Your task to perform on an android device: Check the news Image 0: 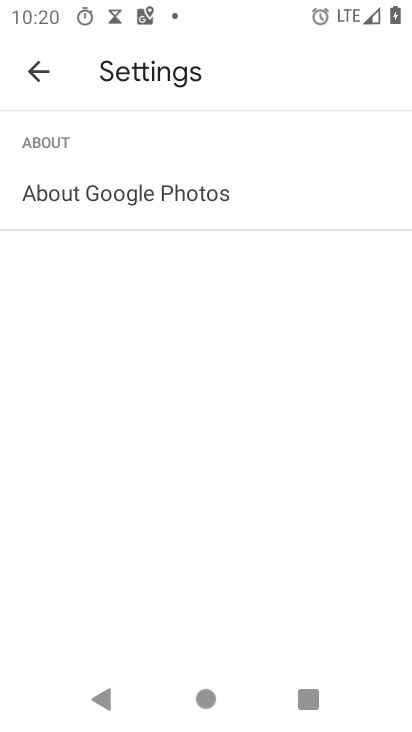
Step 0: press home button
Your task to perform on an android device: Check the news Image 1: 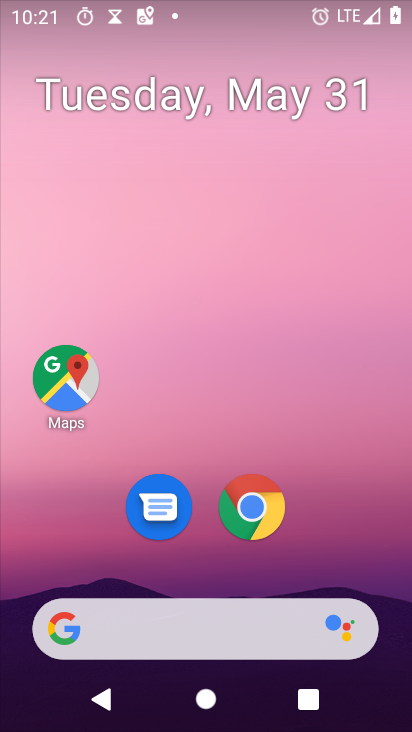
Step 1: click (155, 616)
Your task to perform on an android device: Check the news Image 2: 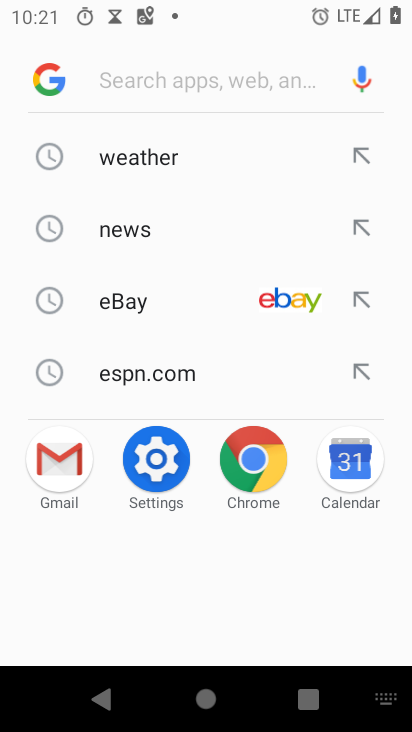
Step 2: click (126, 228)
Your task to perform on an android device: Check the news Image 3: 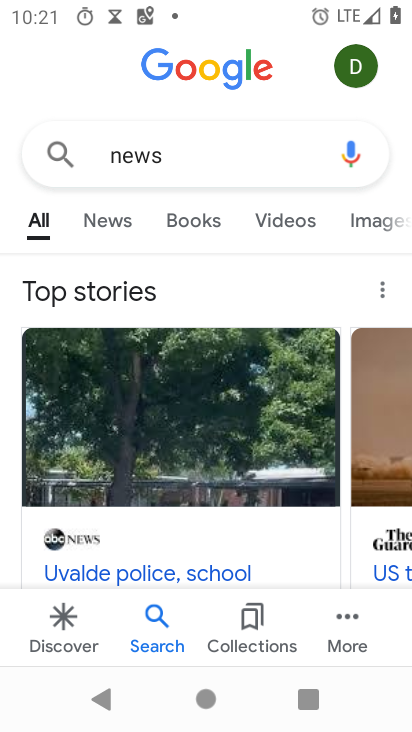
Step 3: task complete